Your task to perform on an android device: turn on data saver in the chrome app Image 0: 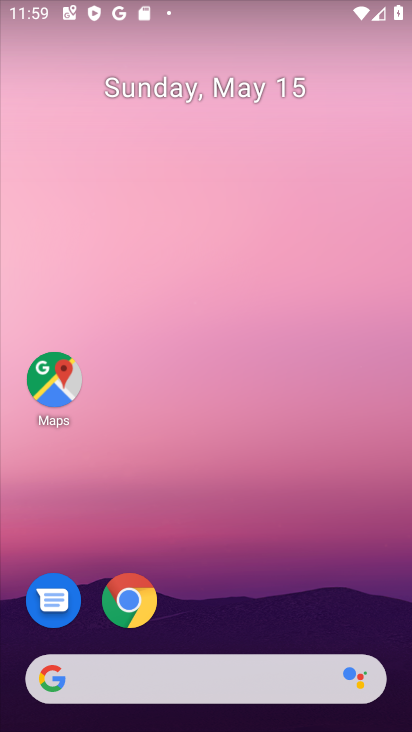
Step 0: click (132, 613)
Your task to perform on an android device: turn on data saver in the chrome app Image 1: 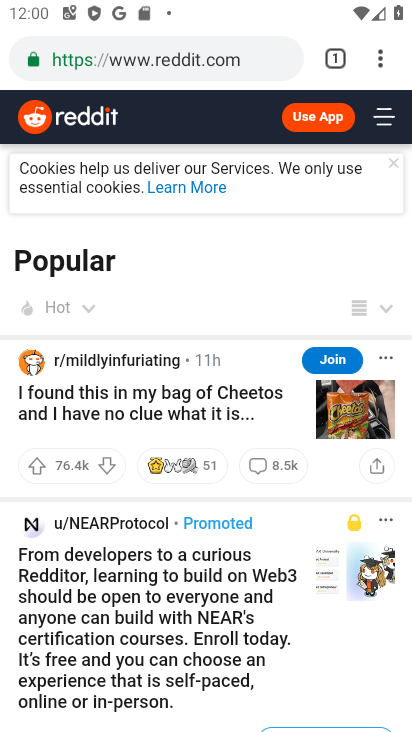
Step 1: drag from (381, 62) to (196, 628)
Your task to perform on an android device: turn on data saver in the chrome app Image 2: 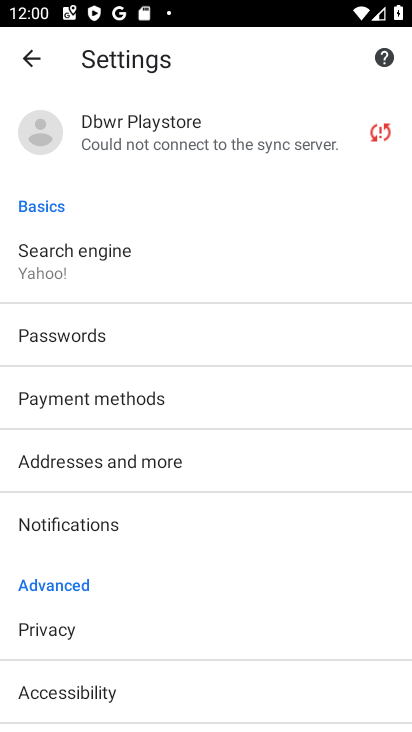
Step 2: drag from (115, 608) to (122, 178)
Your task to perform on an android device: turn on data saver in the chrome app Image 3: 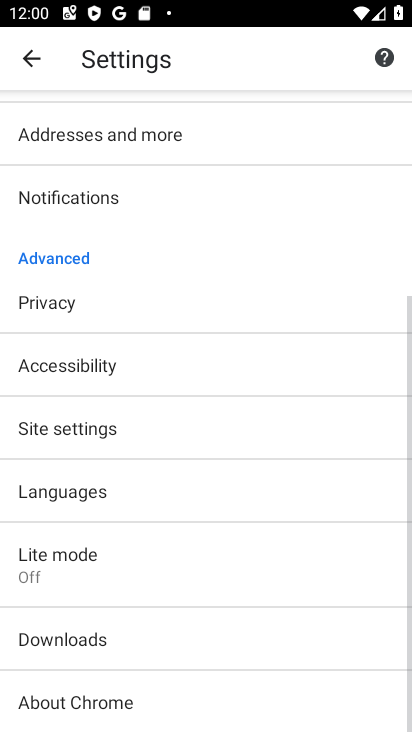
Step 3: click (86, 550)
Your task to perform on an android device: turn on data saver in the chrome app Image 4: 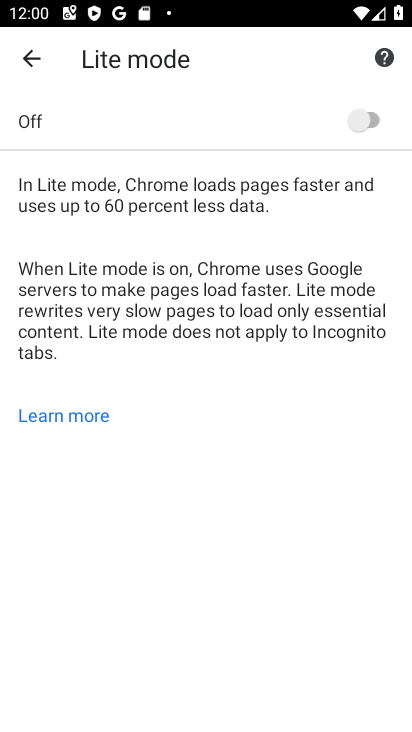
Step 4: click (367, 111)
Your task to perform on an android device: turn on data saver in the chrome app Image 5: 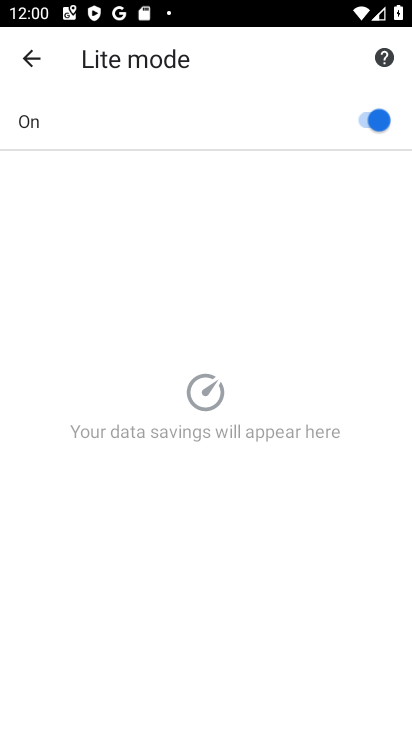
Step 5: task complete